Your task to perform on an android device: Set the phone to "Do not disturb". Image 0: 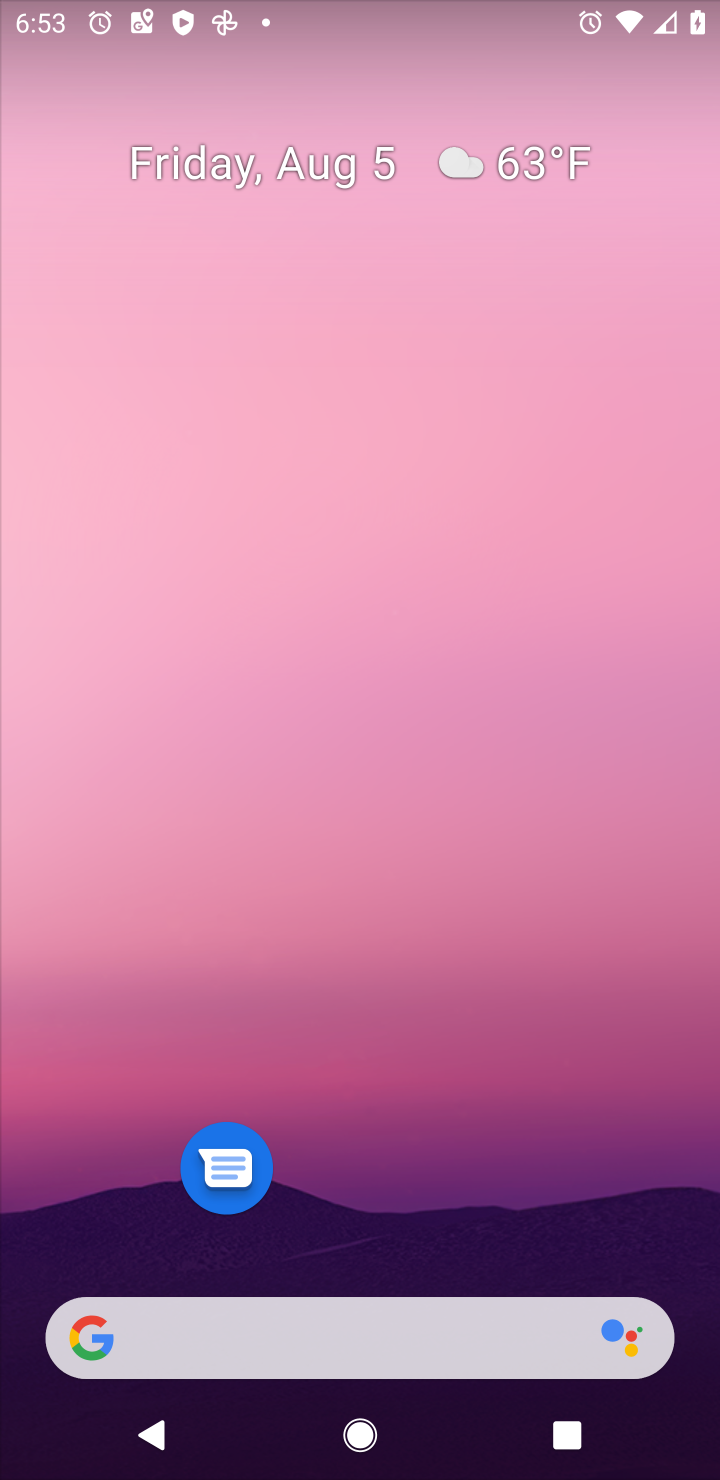
Step 0: press home button
Your task to perform on an android device: Set the phone to "Do not disturb". Image 1: 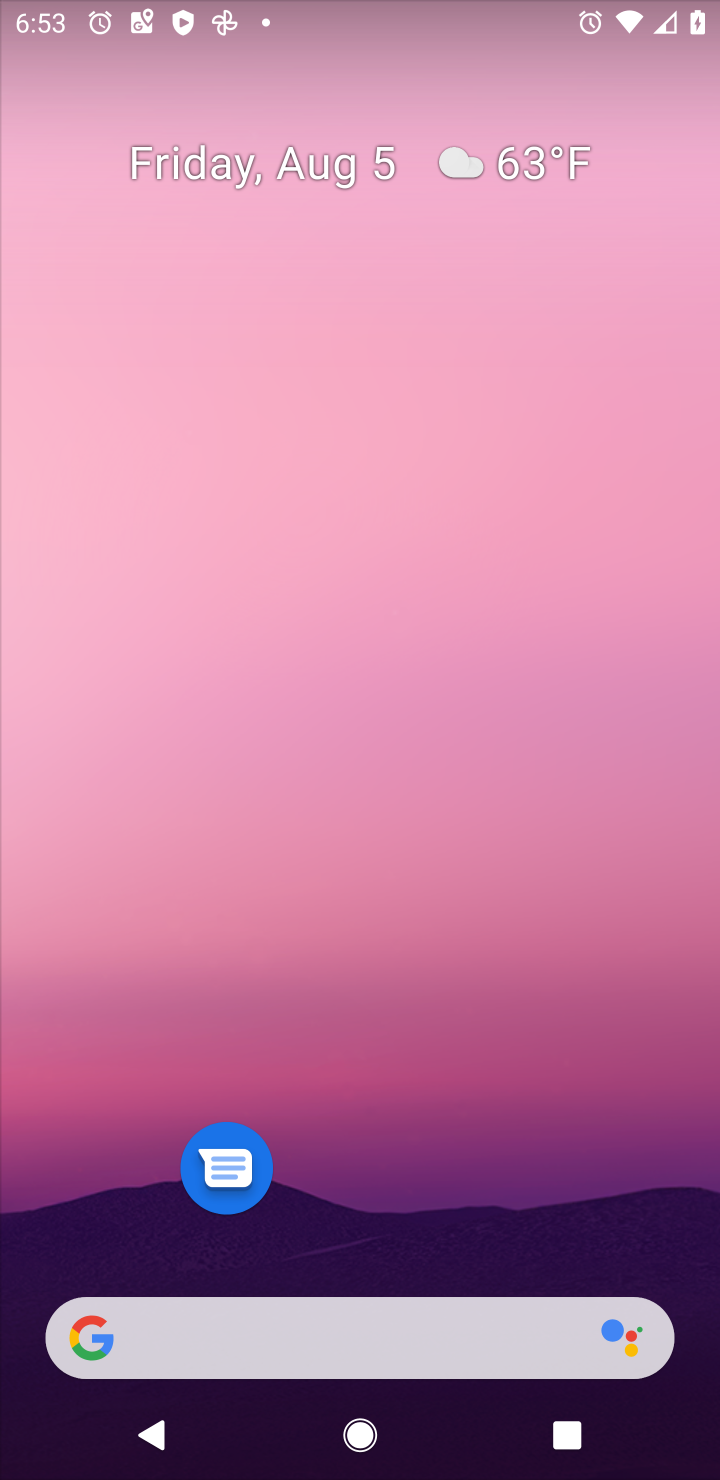
Step 1: drag from (388, 3) to (361, 1198)
Your task to perform on an android device: Set the phone to "Do not disturb". Image 2: 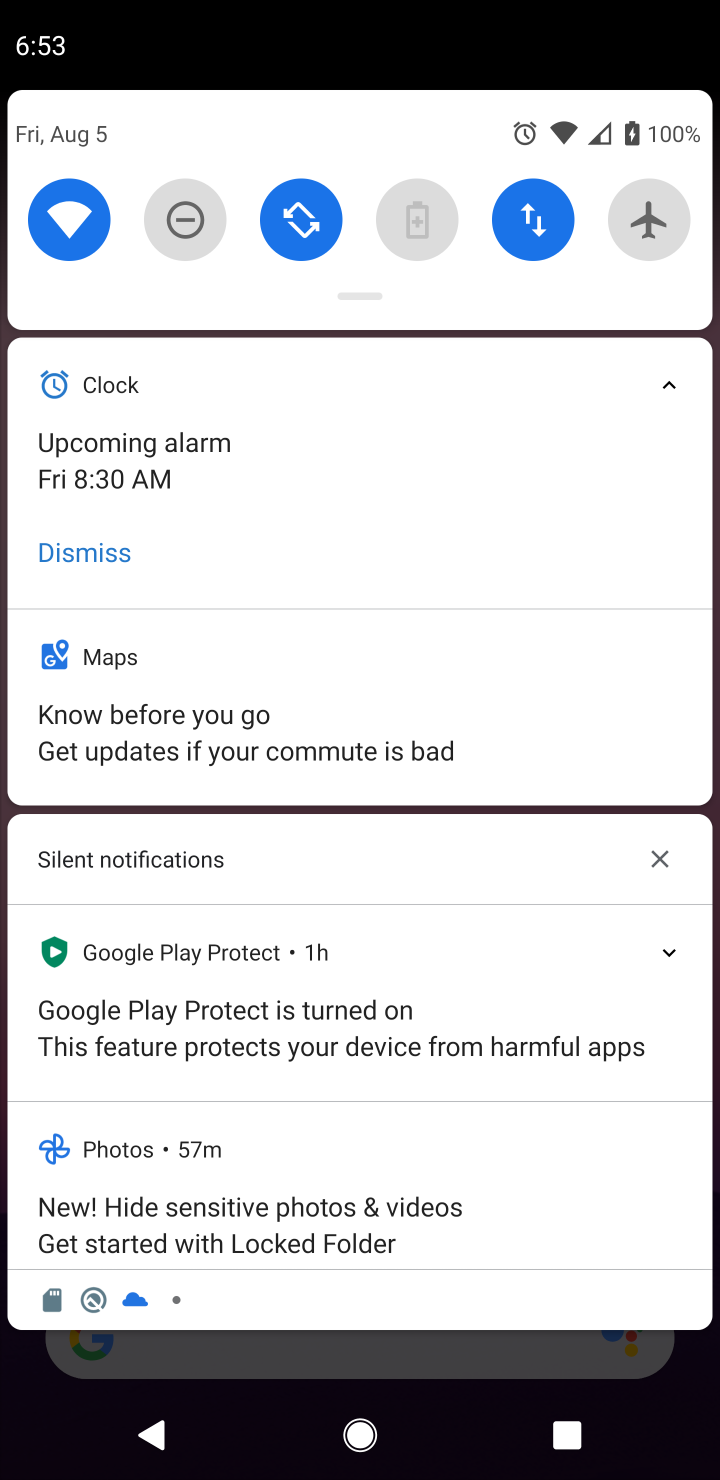
Step 2: click (184, 213)
Your task to perform on an android device: Set the phone to "Do not disturb". Image 3: 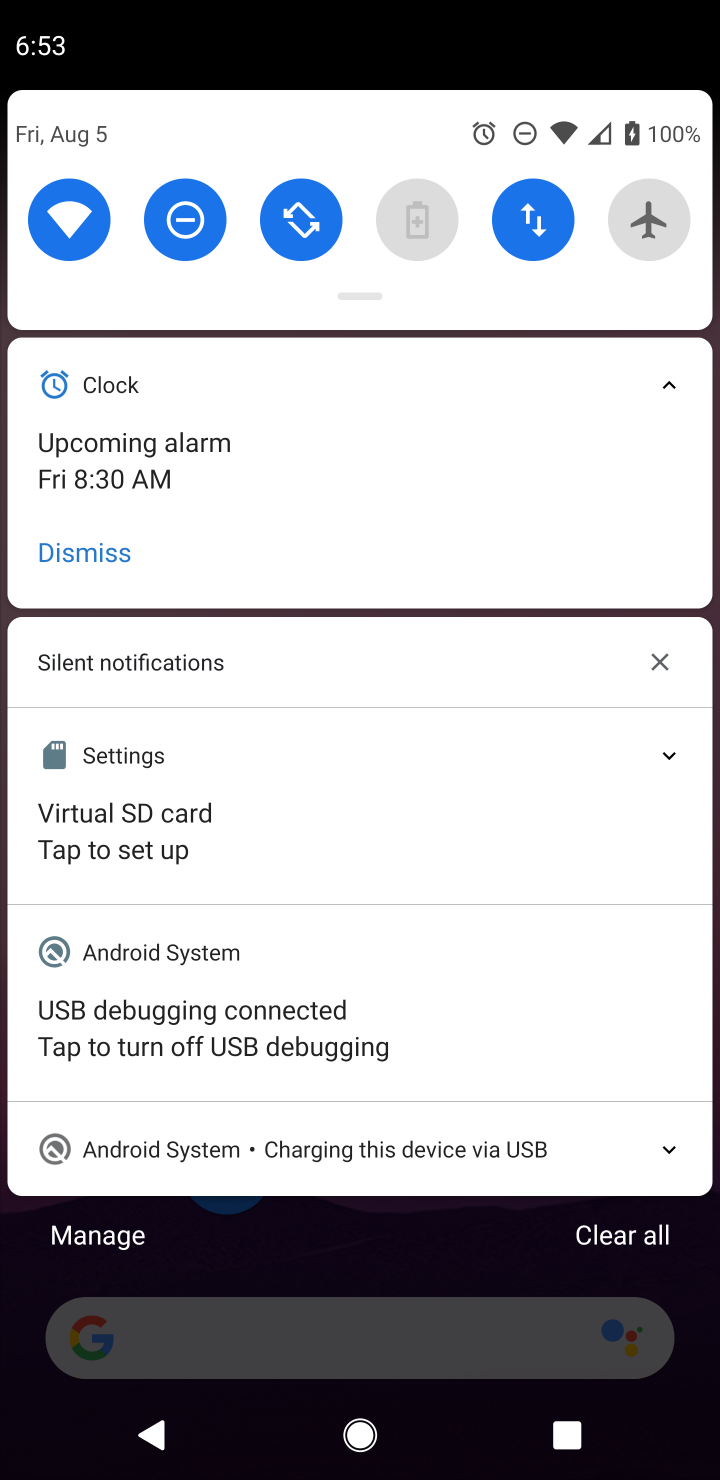
Step 3: task complete